Your task to perform on an android device: find snoozed emails in the gmail app Image 0: 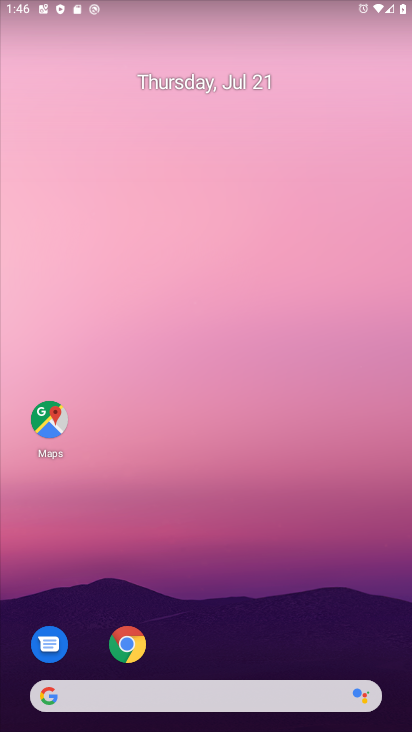
Step 0: drag from (217, 690) to (228, 188)
Your task to perform on an android device: find snoozed emails in the gmail app Image 1: 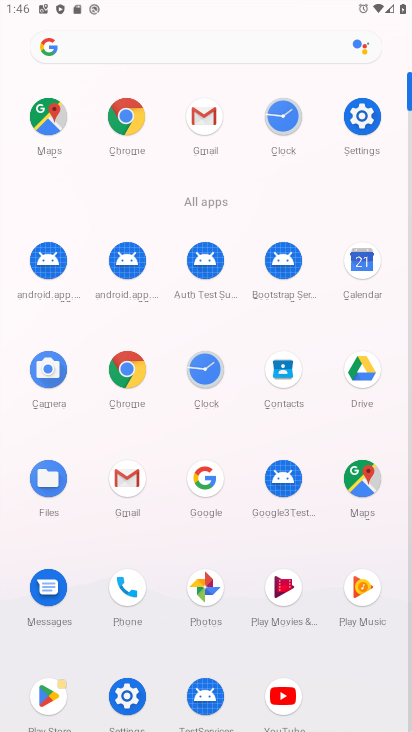
Step 1: click (209, 127)
Your task to perform on an android device: find snoozed emails in the gmail app Image 2: 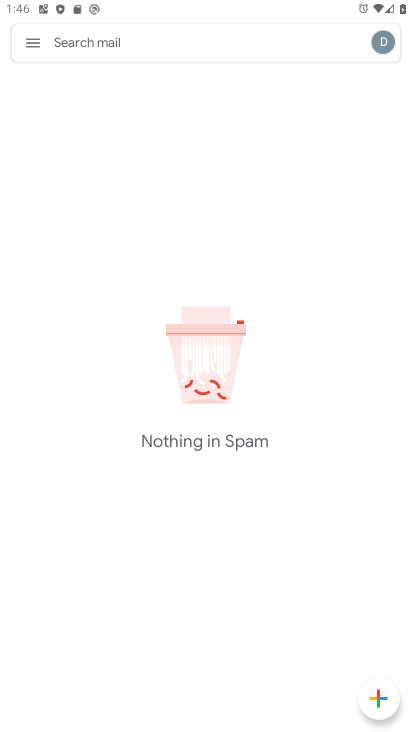
Step 2: click (28, 42)
Your task to perform on an android device: find snoozed emails in the gmail app Image 3: 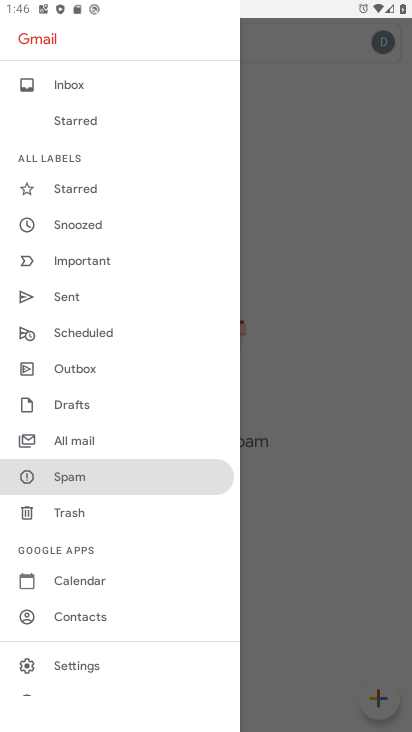
Step 3: click (83, 212)
Your task to perform on an android device: find snoozed emails in the gmail app Image 4: 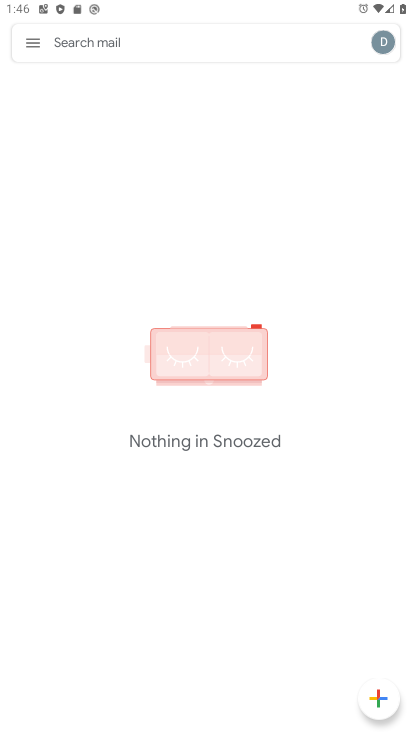
Step 4: task complete